Your task to perform on an android device: Check the weather Image 0: 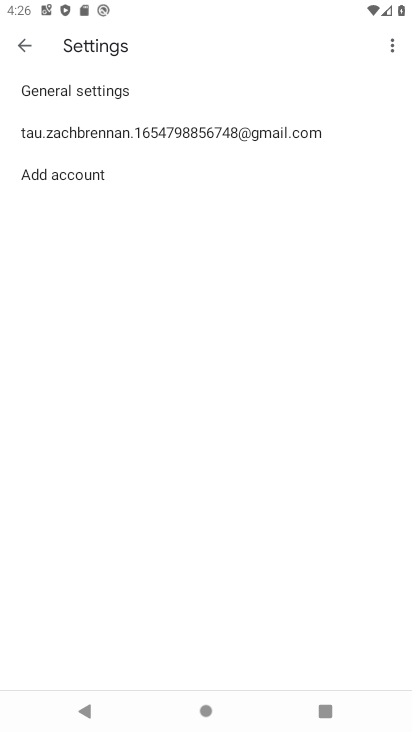
Step 0: press home button
Your task to perform on an android device: Check the weather Image 1: 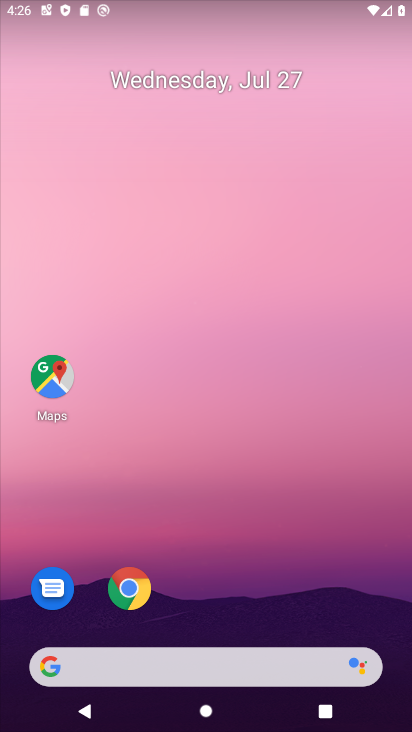
Step 1: drag from (230, 727) to (229, 109)
Your task to perform on an android device: Check the weather Image 2: 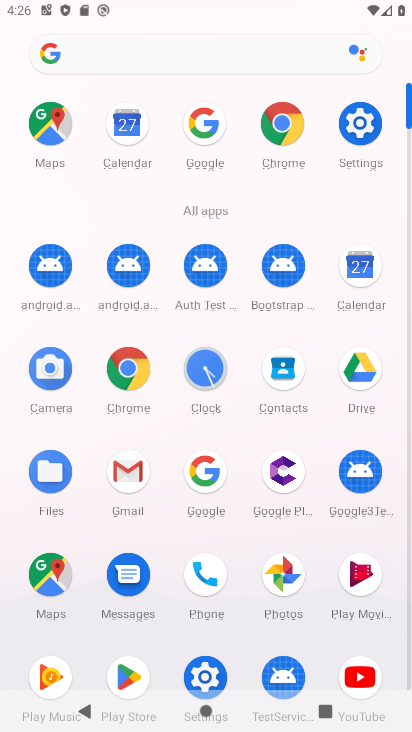
Step 2: click (202, 455)
Your task to perform on an android device: Check the weather Image 3: 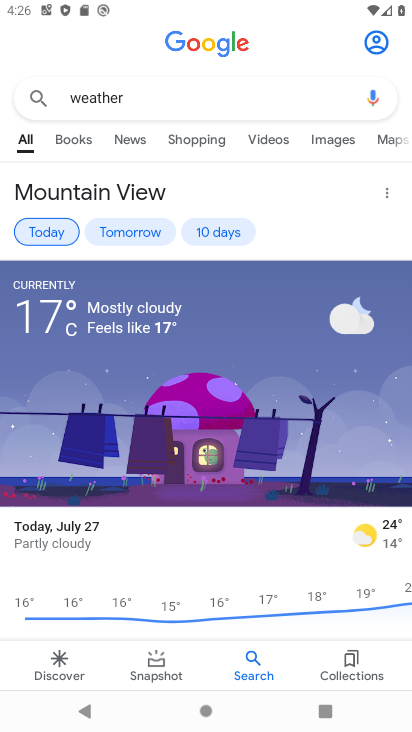
Step 3: click (49, 233)
Your task to perform on an android device: Check the weather Image 4: 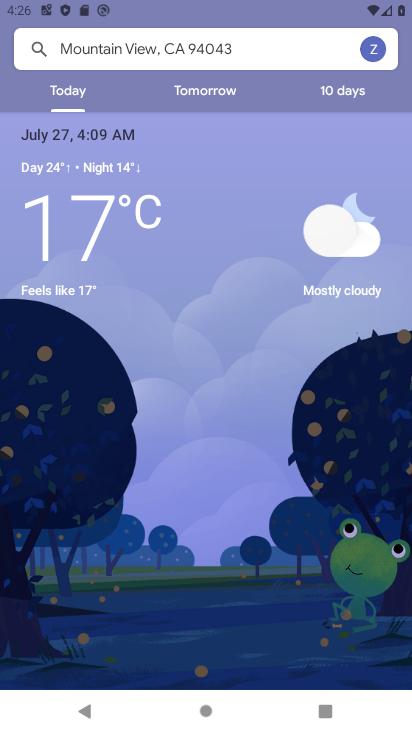
Step 4: task complete